Your task to perform on an android device: Toggle the flashlight Image 0: 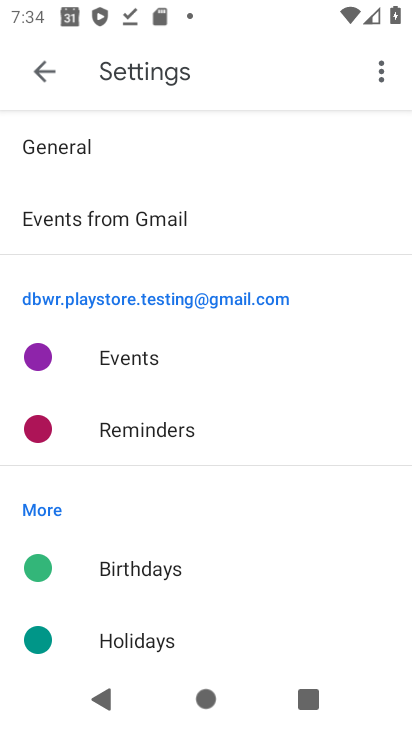
Step 0: press home button
Your task to perform on an android device: Toggle the flashlight Image 1: 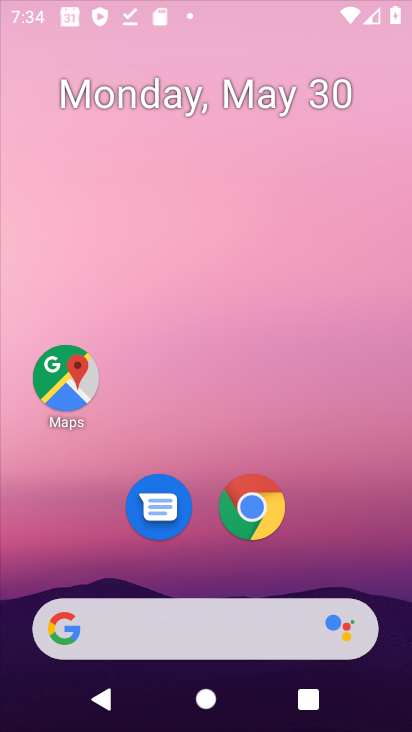
Step 1: drag from (388, 564) to (325, 177)
Your task to perform on an android device: Toggle the flashlight Image 2: 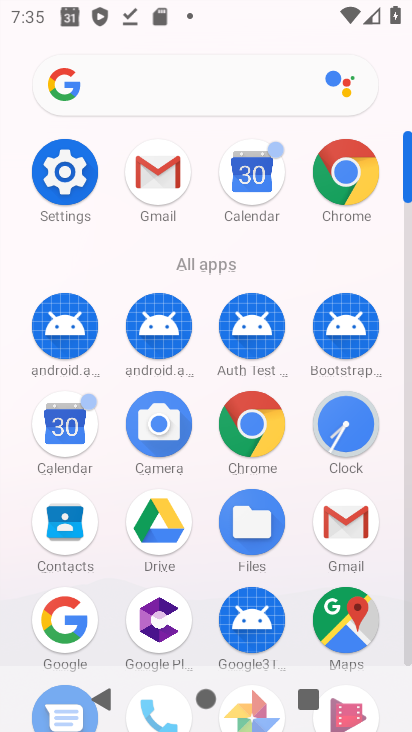
Step 2: click (78, 191)
Your task to perform on an android device: Toggle the flashlight Image 3: 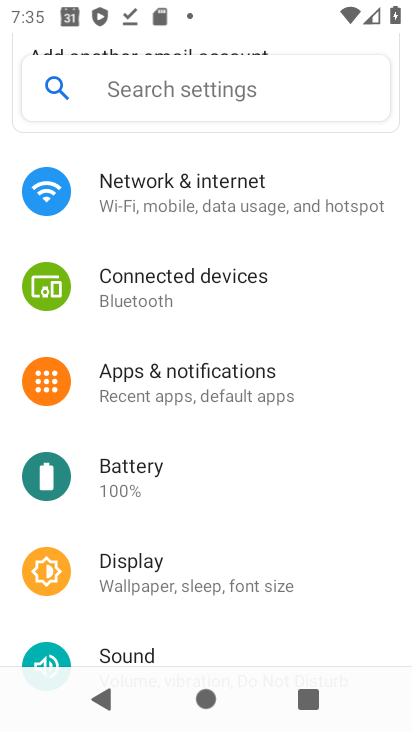
Step 3: click (218, 93)
Your task to perform on an android device: Toggle the flashlight Image 4: 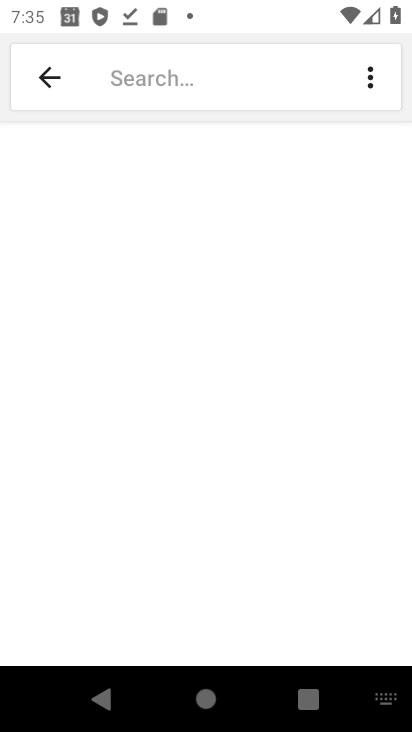
Step 4: type "flashlight"
Your task to perform on an android device: Toggle the flashlight Image 5: 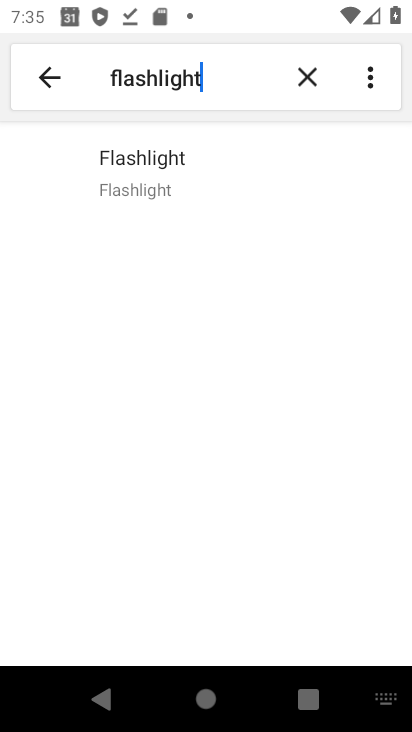
Step 5: click (218, 193)
Your task to perform on an android device: Toggle the flashlight Image 6: 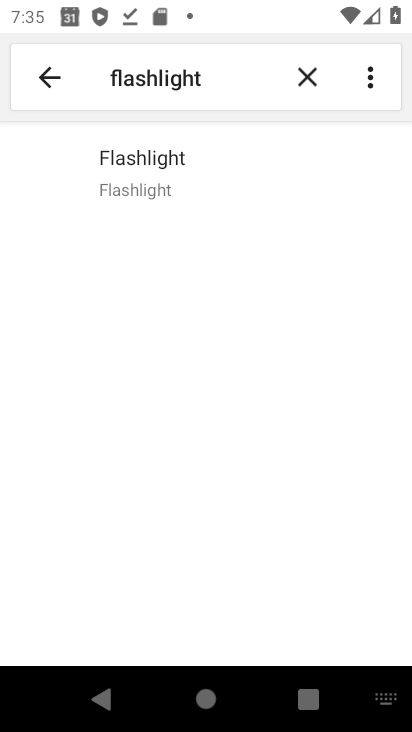
Step 6: task complete